Your task to perform on an android device: make emails show in primary in the gmail app Image 0: 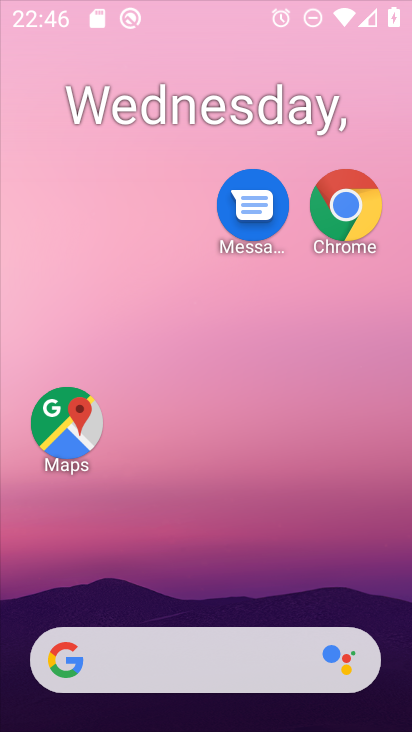
Step 0: drag from (187, 586) to (220, 237)
Your task to perform on an android device: make emails show in primary in the gmail app Image 1: 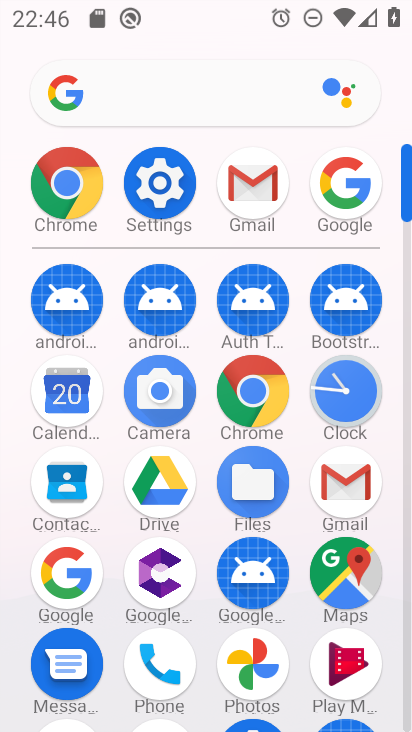
Step 1: click (345, 486)
Your task to perform on an android device: make emails show in primary in the gmail app Image 2: 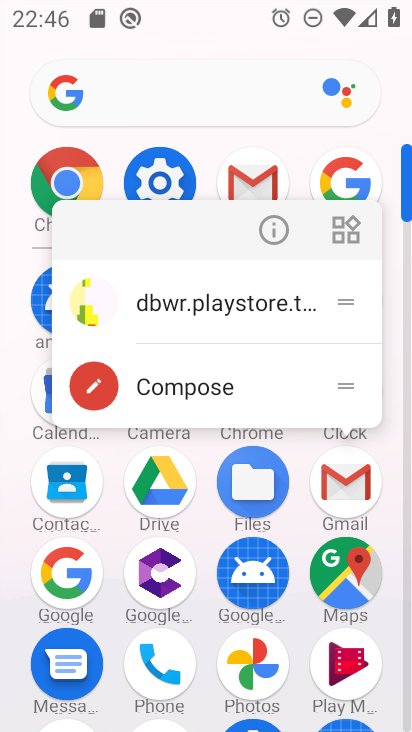
Step 2: click (286, 232)
Your task to perform on an android device: make emails show in primary in the gmail app Image 3: 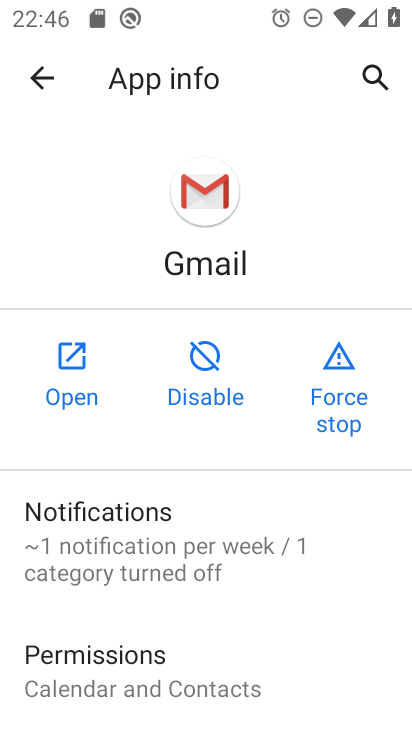
Step 3: click (73, 392)
Your task to perform on an android device: make emails show in primary in the gmail app Image 4: 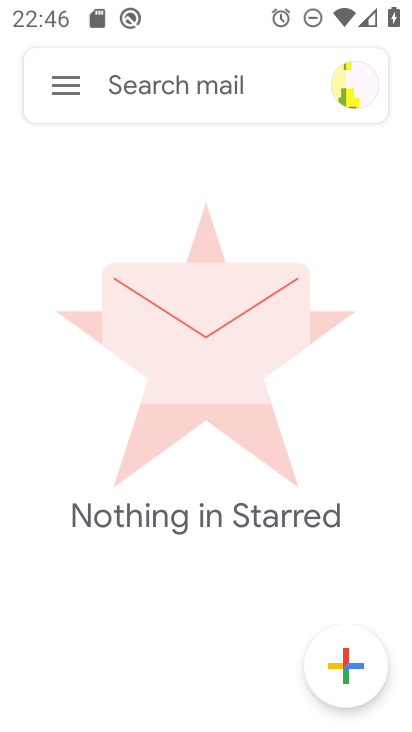
Step 4: click (76, 77)
Your task to perform on an android device: make emails show in primary in the gmail app Image 5: 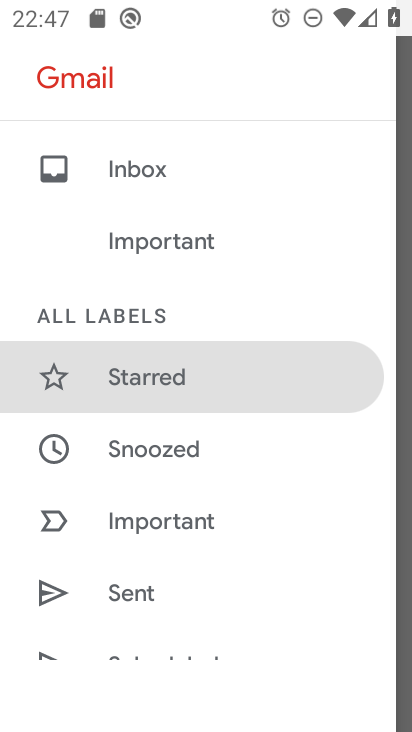
Step 5: drag from (210, 581) to (286, 204)
Your task to perform on an android device: make emails show in primary in the gmail app Image 6: 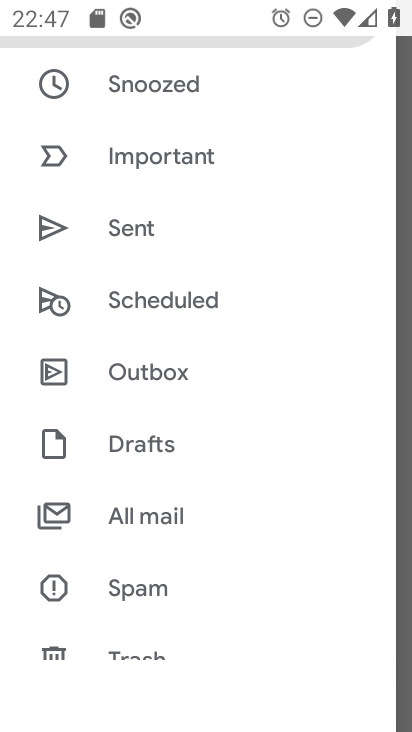
Step 6: drag from (184, 563) to (271, 24)
Your task to perform on an android device: make emails show in primary in the gmail app Image 7: 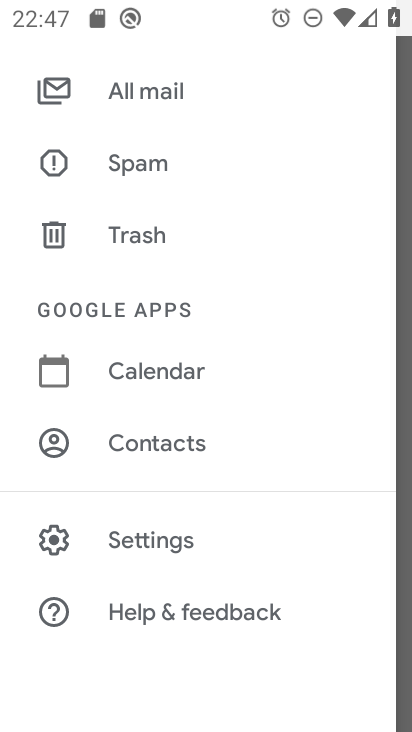
Step 7: drag from (231, 122) to (320, 661)
Your task to perform on an android device: make emails show in primary in the gmail app Image 8: 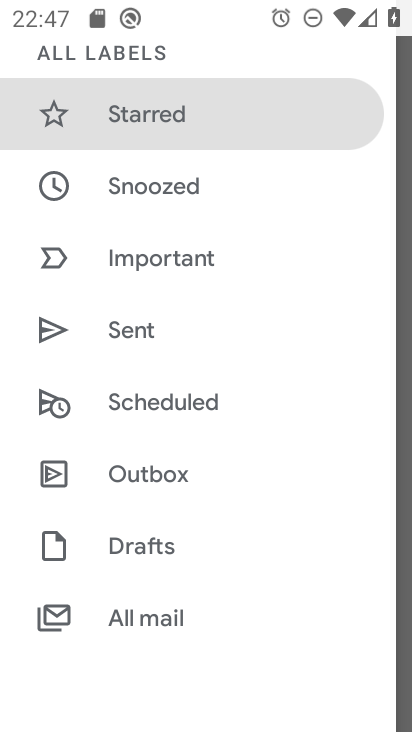
Step 8: drag from (205, 111) to (287, 704)
Your task to perform on an android device: make emails show in primary in the gmail app Image 9: 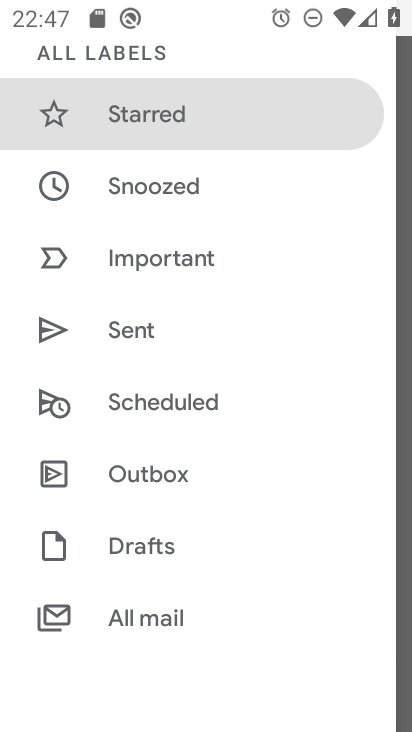
Step 9: drag from (135, 116) to (253, 566)
Your task to perform on an android device: make emails show in primary in the gmail app Image 10: 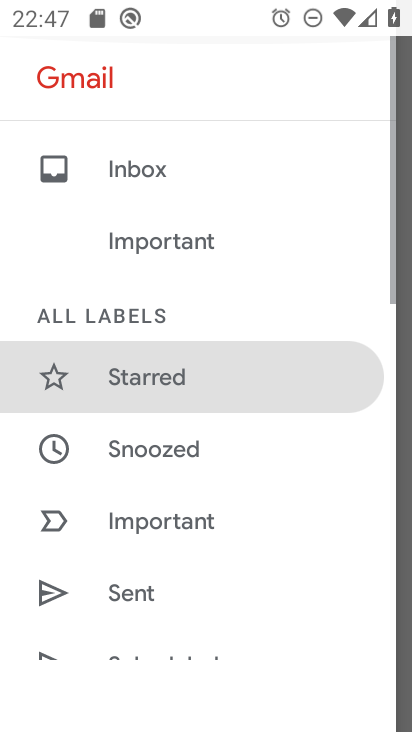
Step 10: click (144, 186)
Your task to perform on an android device: make emails show in primary in the gmail app Image 11: 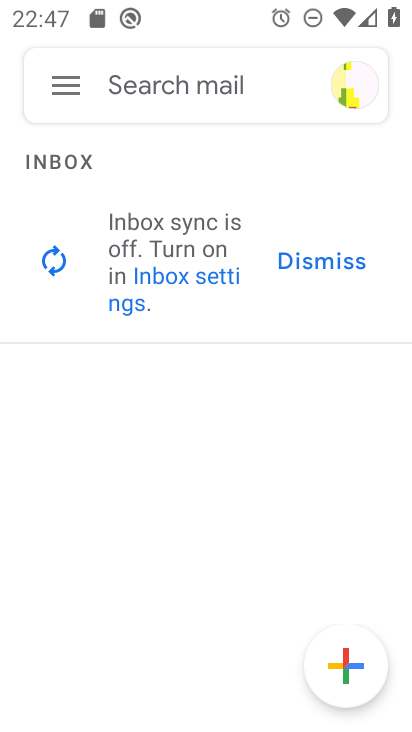
Step 11: task complete